Your task to perform on an android device: turn notification dots off Image 0: 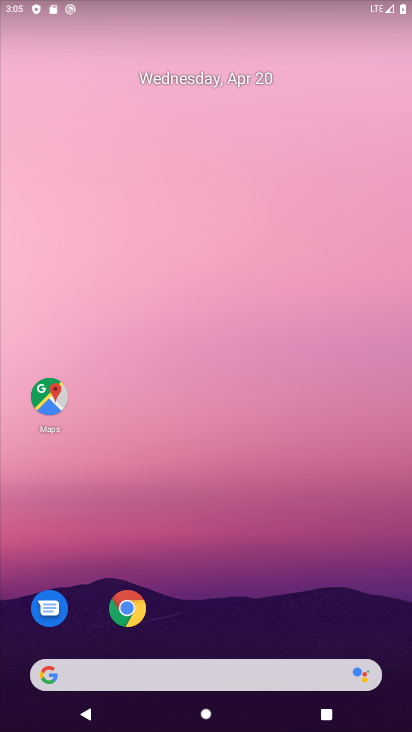
Step 0: drag from (206, 644) to (384, 83)
Your task to perform on an android device: turn notification dots off Image 1: 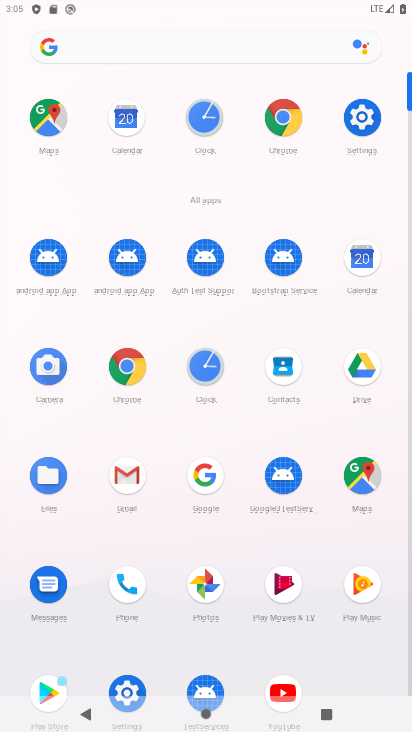
Step 1: click (353, 128)
Your task to perform on an android device: turn notification dots off Image 2: 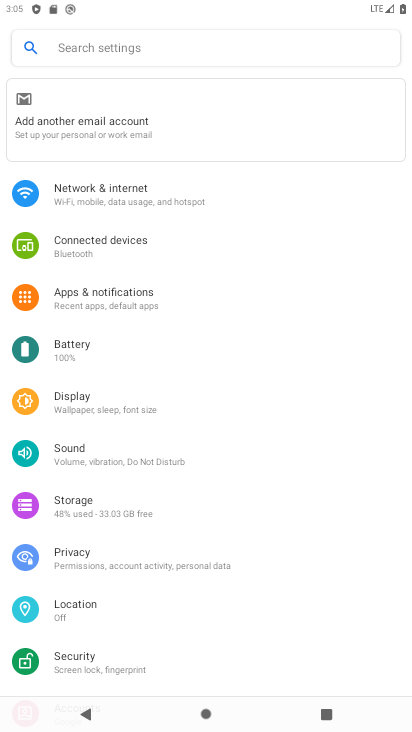
Step 2: click (136, 292)
Your task to perform on an android device: turn notification dots off Image 3: 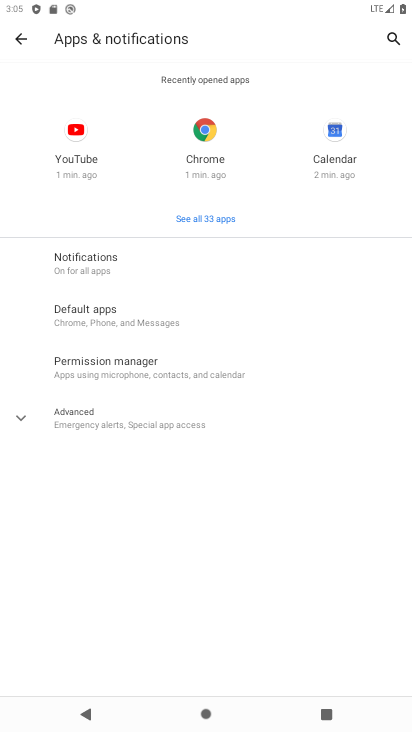
Step 3: click (51, 425)
Your task to perform on an android device: turn notification dots off Image 4: 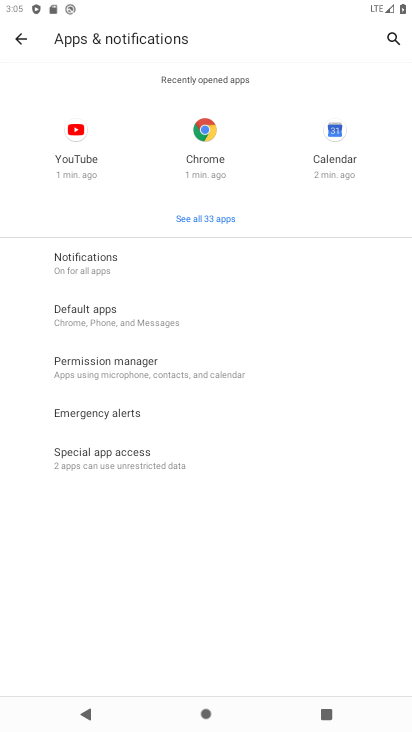
Step 4: click (94, 265)
Your task to perform on an android device: turn notification dots off Image 5: 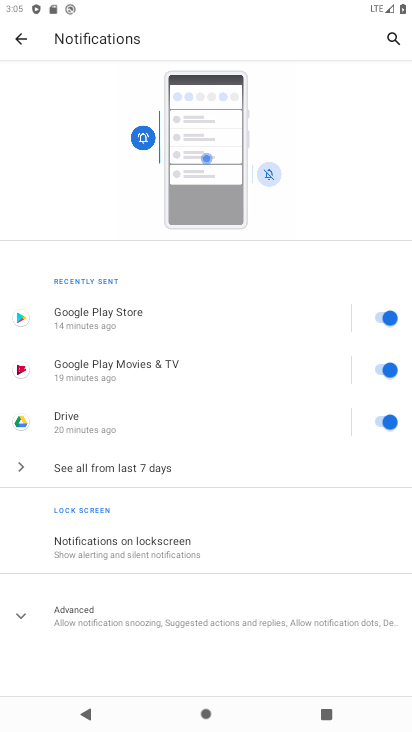
Step 5: click (157, 608)
Your task to perform on an android device: turn notification dots off Image 6: 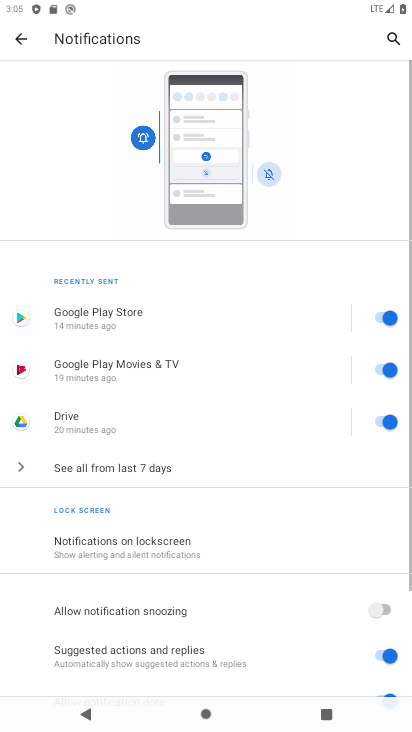
Step 6: drag from (157, 608) to (119, 204)
Your task to perform on an android device: turn notification dots off Image 7: 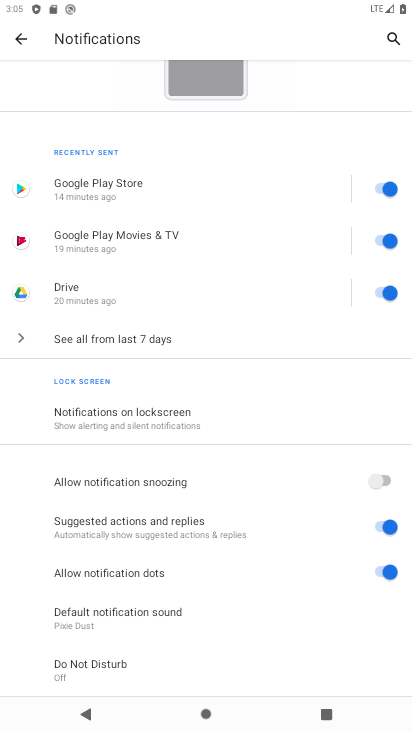
Step 7: click (378, 570)
Your task to perform on an android device: turn notification dots off Image 8: 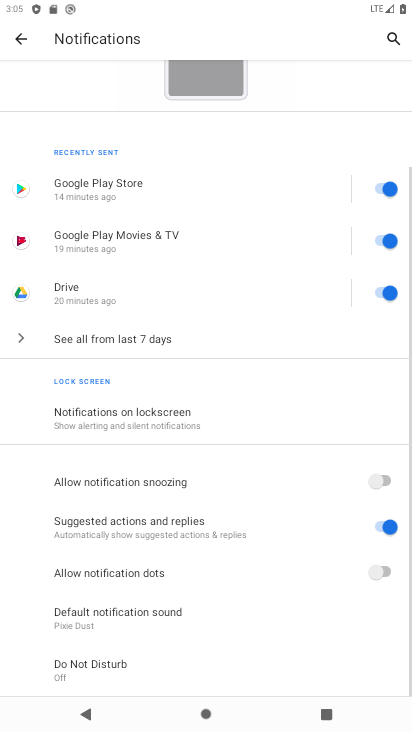
Step 8: task complete